Your task to perform on an android device: Go to notification settings Image 0: 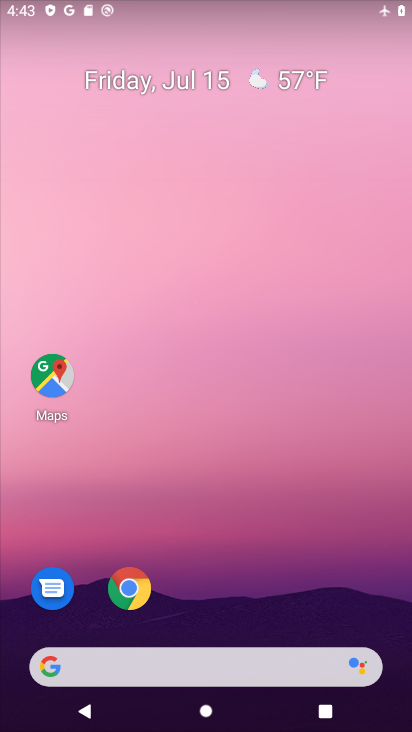
Step 0: drag from (301, 586) to (330, 114)
Your task to perform on an android device: Go to notification settings Image 1: 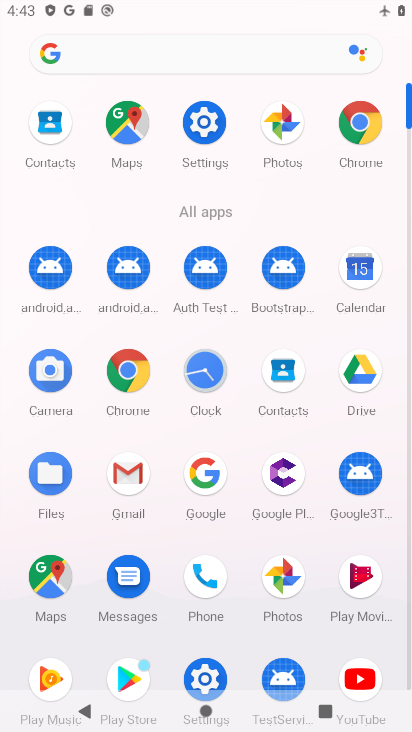
Step 1: click (207, 115)
Your task to perform on an android device: Go to notification settings Image 2: 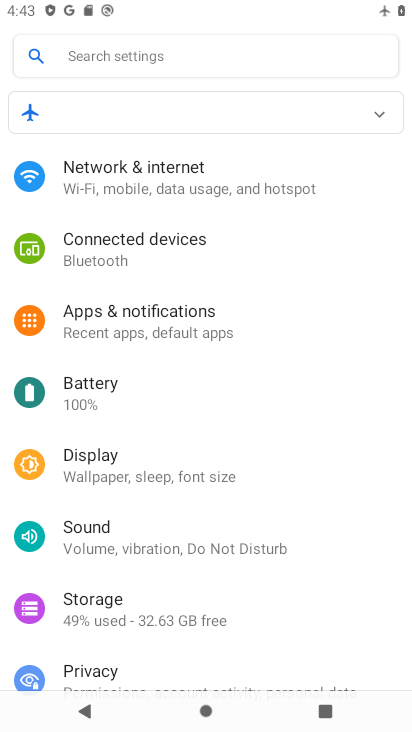
Step 2: click (139, 317)
Your task to perform on an android device: Go to notification settings Image 3: 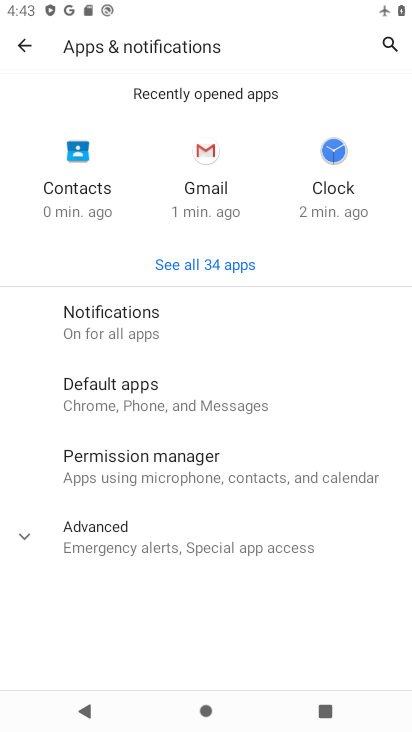
Step 3: click (119, 320)
Your task to perform on an android device: Go to notification settings Image 4: 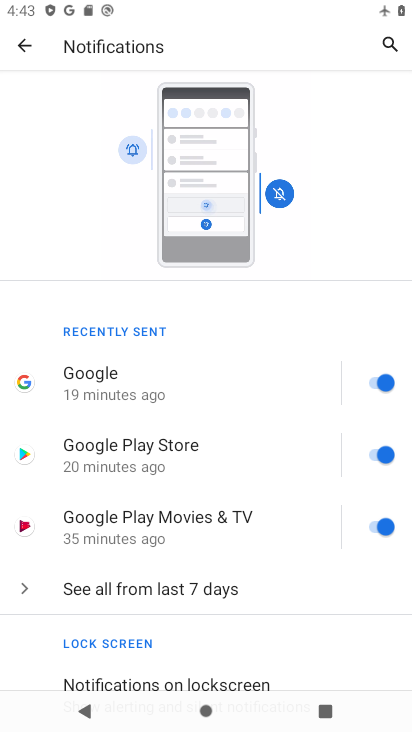
Step 4: drag from (297, 557) to (336, 227)
Your task to perform on an android device: Go to notification settings Image 5: 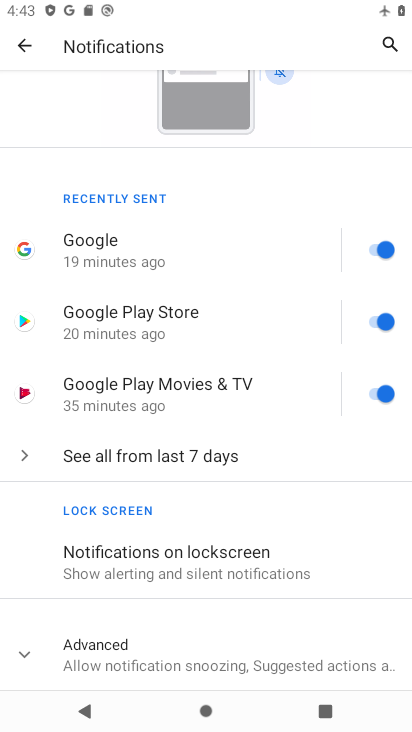
Step 5: click (86, 667)
Your task to perform on an android device: Go to notification settings Image 6: 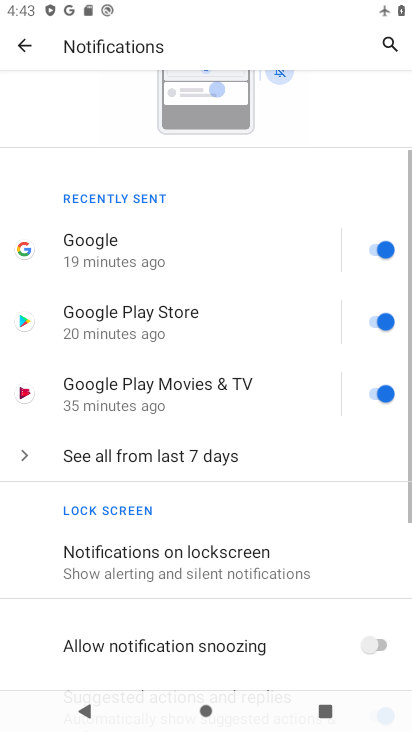
Step 6: task complete